Your task to perform on an android device: Search for rayovac triple a on costco, select the first entry, add it to the cart, then select checkout. Image 0: 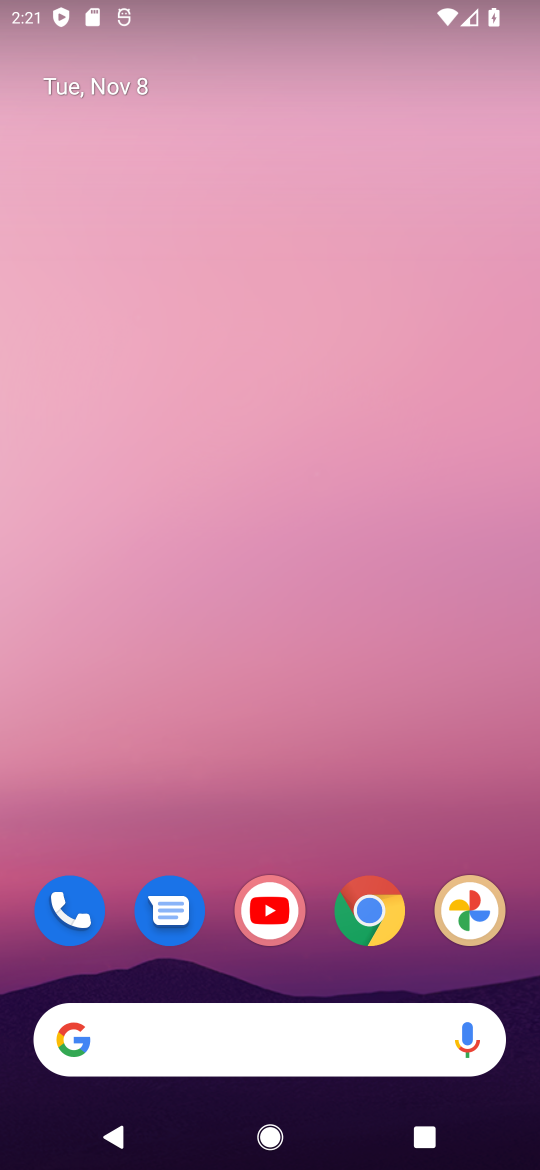
Step 0: drag from (316, 932) to (299, 26)
Your task to perform on an android device: Search for rayovac triple a on costco, select the first entry, add it to the cart, then select checkout. Image 1: 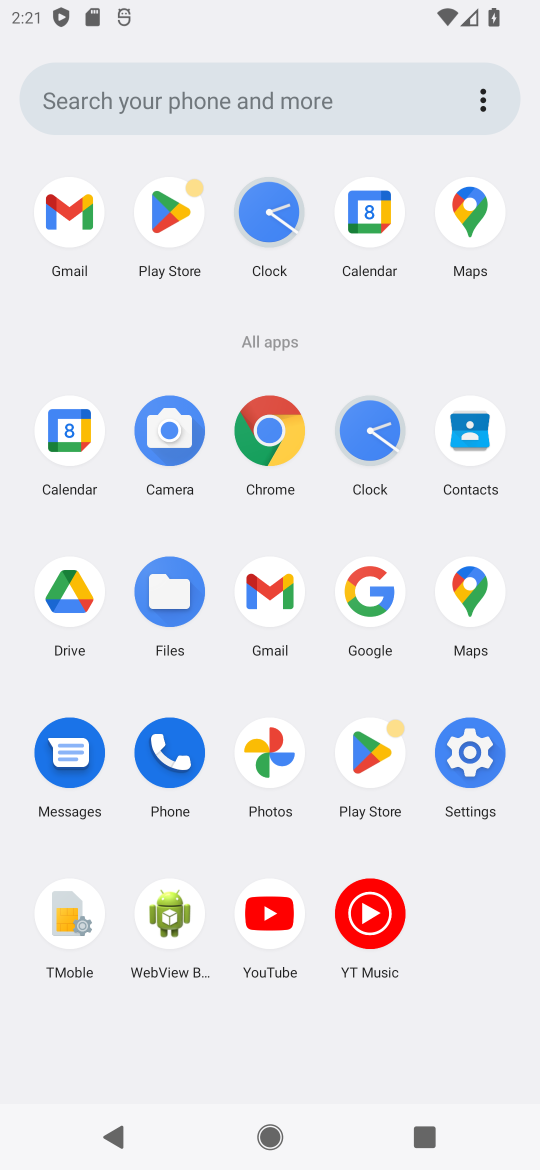
Step 1: click (282, 429)
Your task to perform on an android device: Search for rayovac triple a on costco, select the first entry, add it to the cart, then select checkout. Image 2: 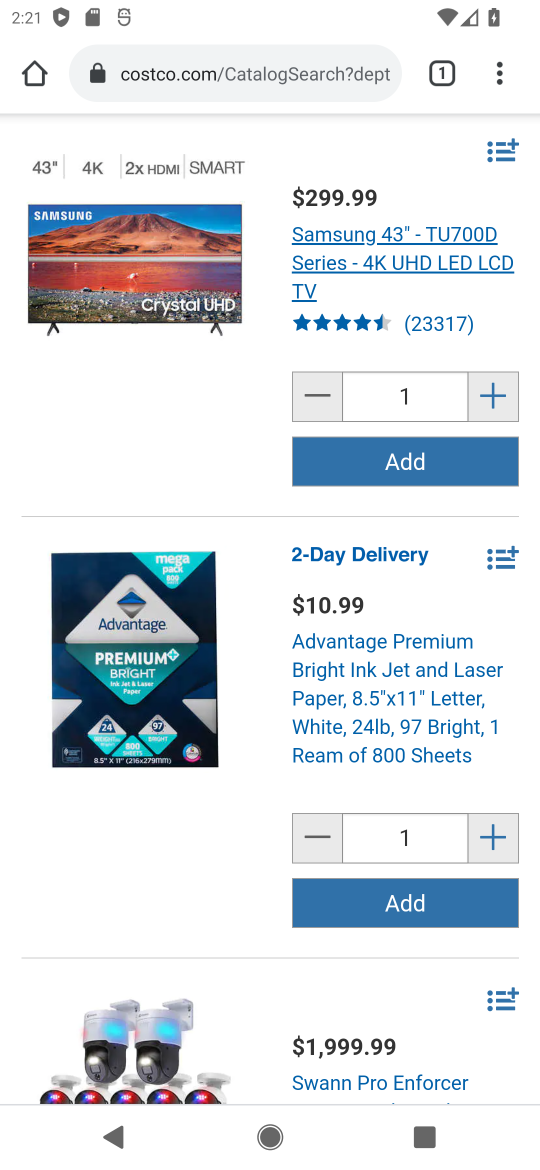
Step 2: click (255, 75)
Your task to perform on an android device: Search for rayovac triple a on costco, select the first entry, add it to the cart, then select checkout. Image 3: 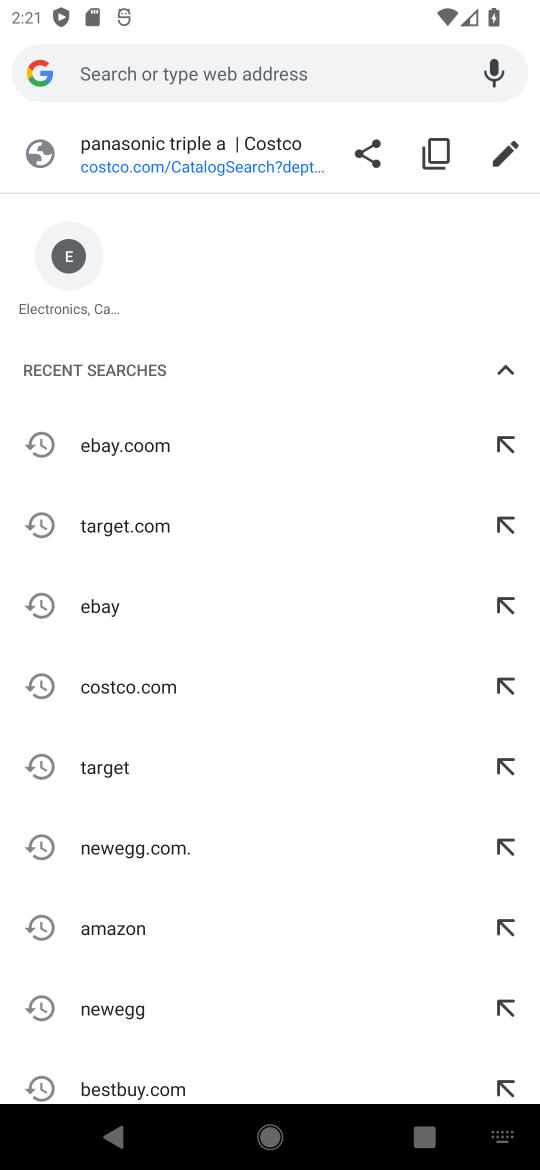
Step 3: type "costco.com"
Your task to perform on an android device: Search for rayovac triple a on costco, select the first entry, add it to the cart, then select checkout. Image 4: 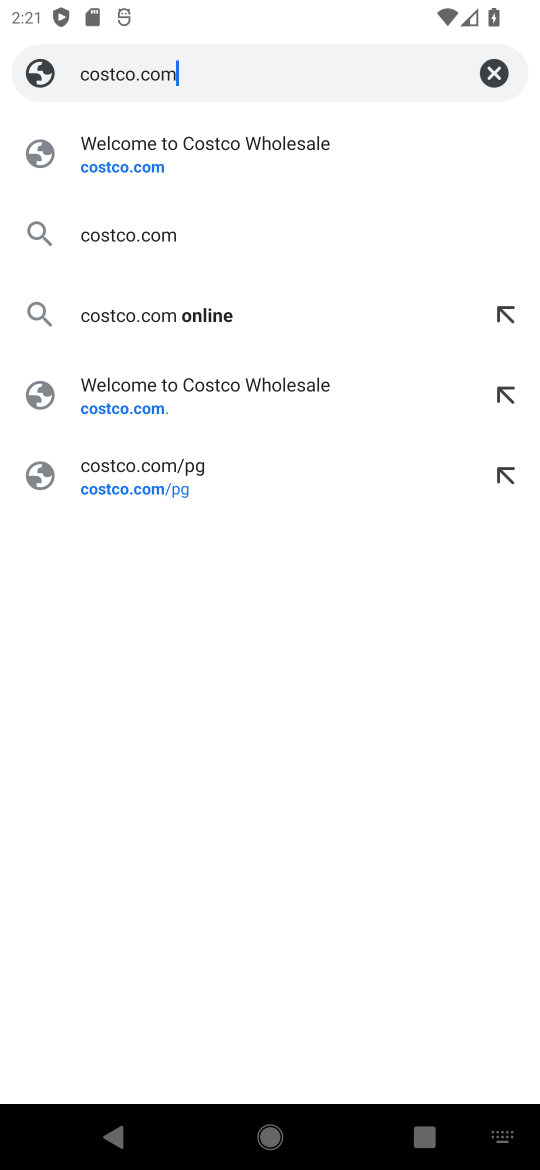
Step 4: press enter
Your task to perform on an android device: Search for rayovac triple a on costco, select the first entry, add it to the cart, then select checkout. Image 5: 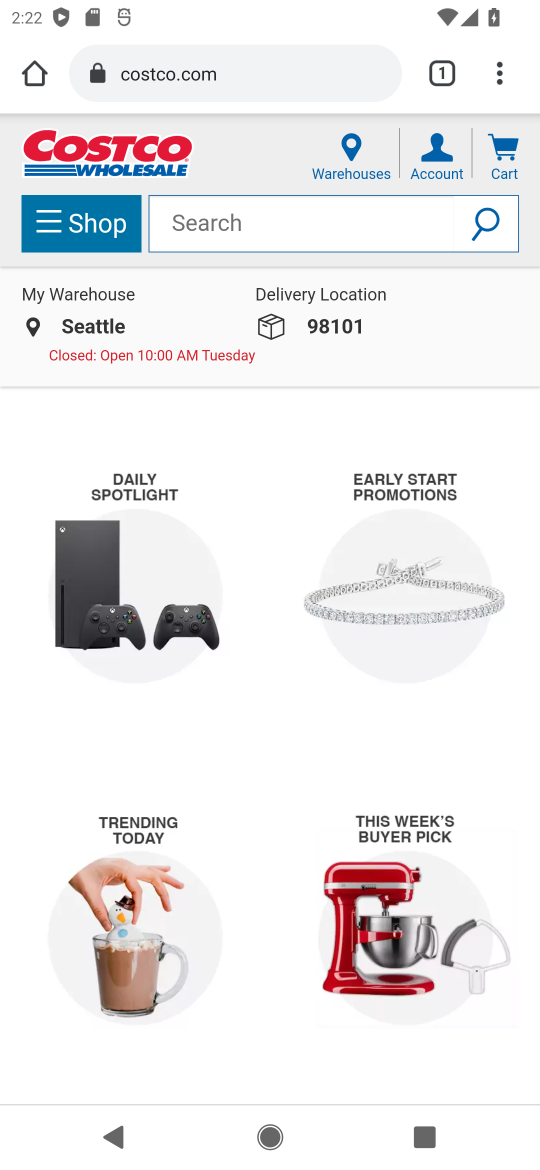
Step 5: click (223, 228)
Your task to perform on an android device: Search for rayovac triple a on costco, select the first entry, add it to the cart, then select checkout. Image 6: 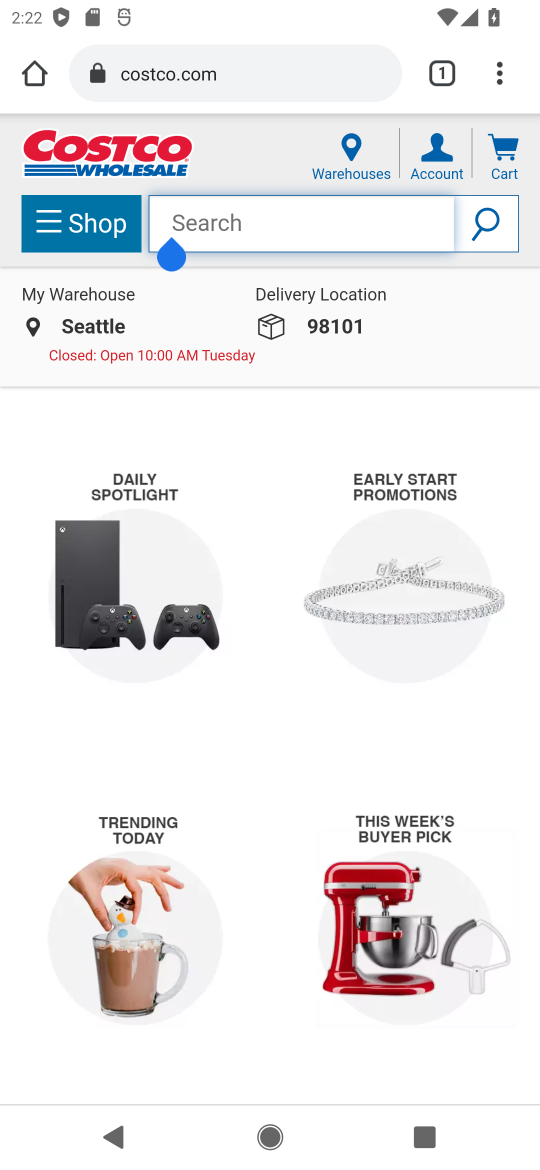
Step 6: type "rayovac triple a"
Your task to perform on an android device: Search for rayovac triple a on costco, select the first entry, add it to the cart, then select checkout. Image 7: 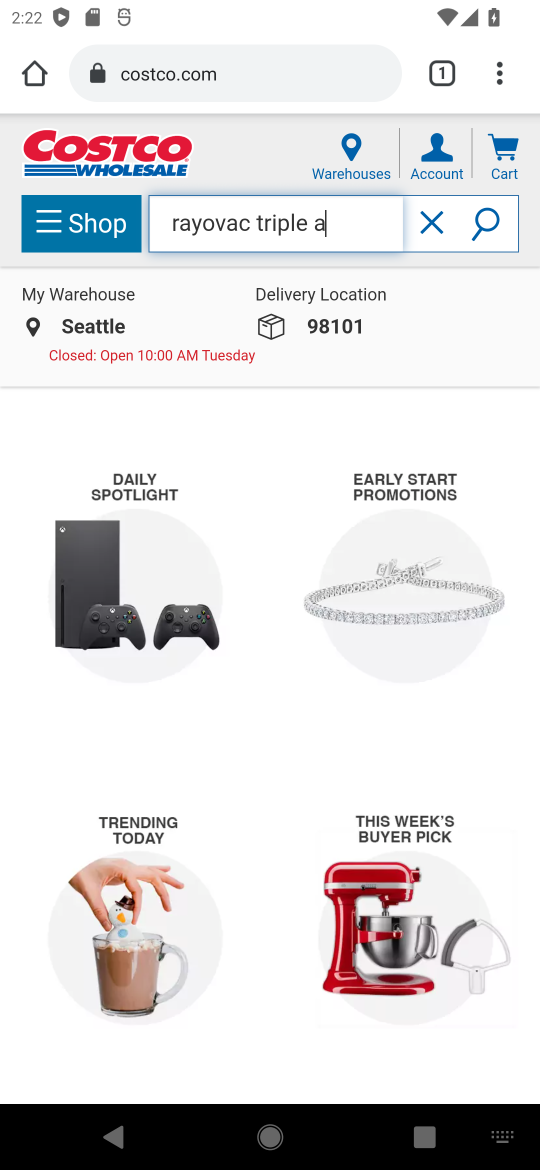
Step 7: press enter
Your task to perform on an android device: Search for rayovac triple a on costco, select the first entry, add it to the cart, then select checkout. Image 8: 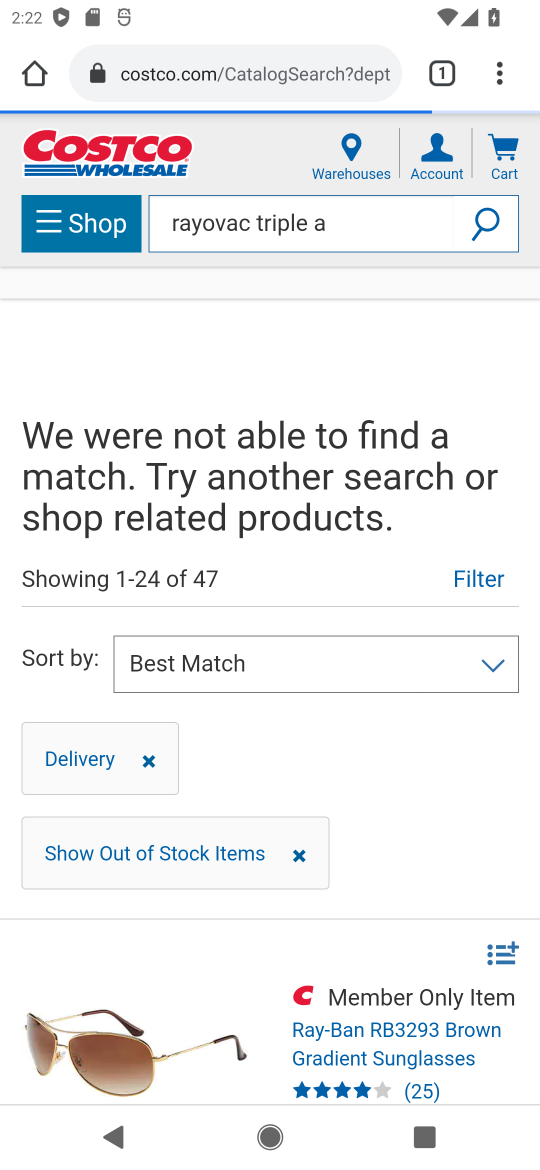
Step 8: task complete